Your task to perform on an android device: Go to accessibility settings Image 0: 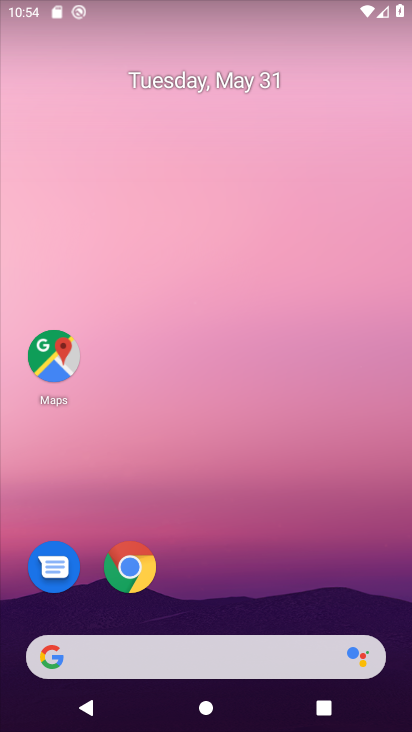
Step 0: drag from (244, 38) to (369, 151)
Your task to perform on an android device: Go to accessibility settings Image 1: 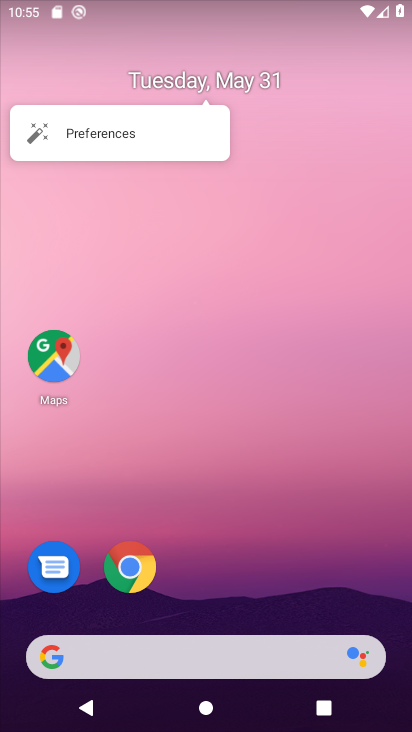
Step 1: drag from (247, 570) to (263, 170)
Your task to perform on an android device: Go to accessibility settings Image 2: 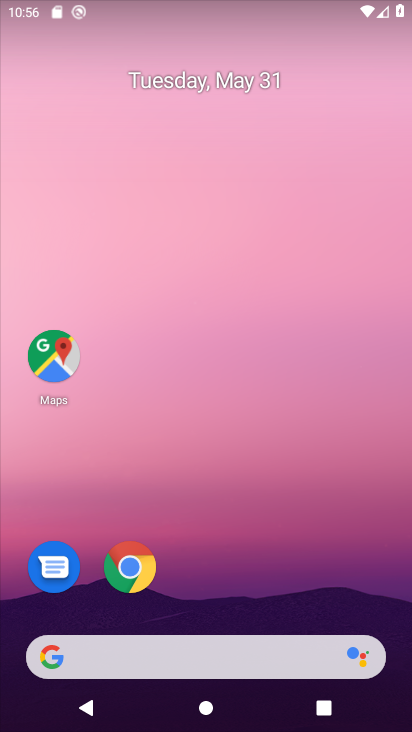
Step 2: drag from (187, 588) to (138, 45)
Your task to perform on an android device: Go to accessibility settings Image 3: 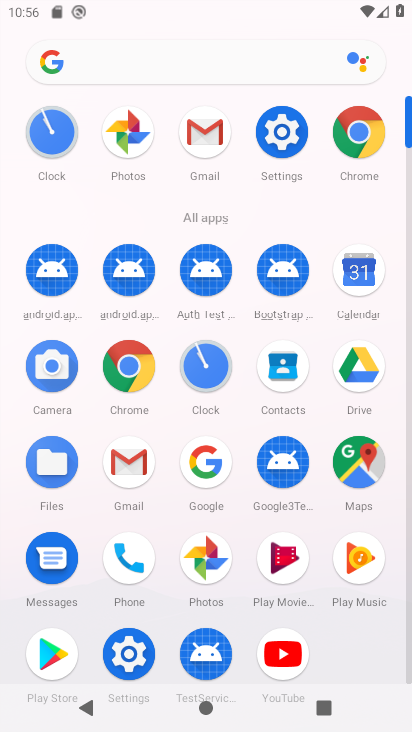
Step 3: click (114, 656)
Your task to perform on an android device: Go to accessibility settings Image 4: 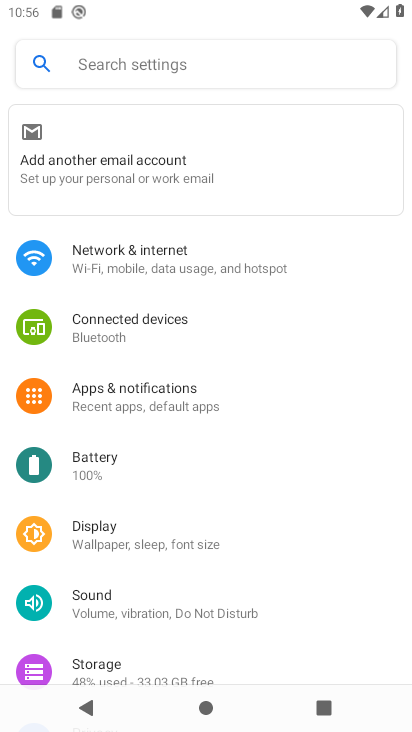
Step 4: drag from (158, 629) to (251, 84)
Your task to perform on an android device: Go to accessibility settings Image 5: 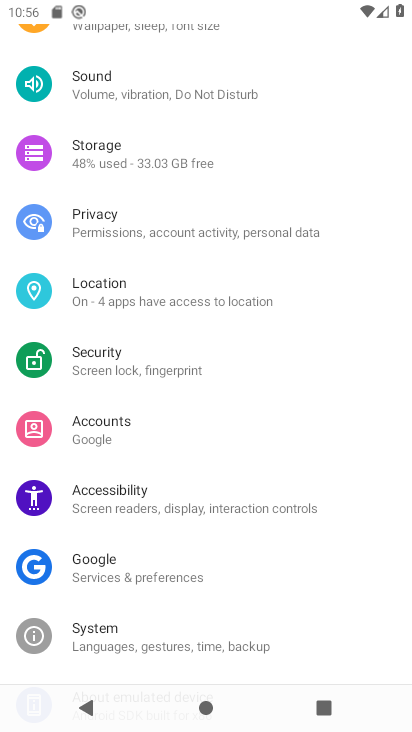
Step 5: click (111, 511)
Your task to perform on an android device: Go to accessibility settings Image 6: 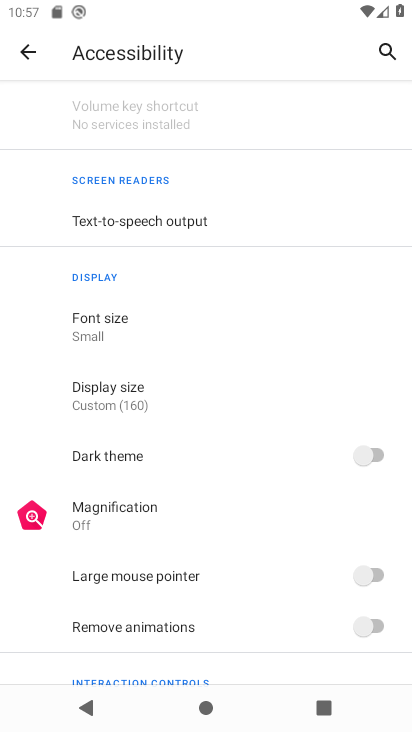
Step 6: task complete